Your task to perform on an android device: open app "Reddit" (install if not already installed) and enter user name: "issues@yahoo.com" and password: "belt" Image 0: 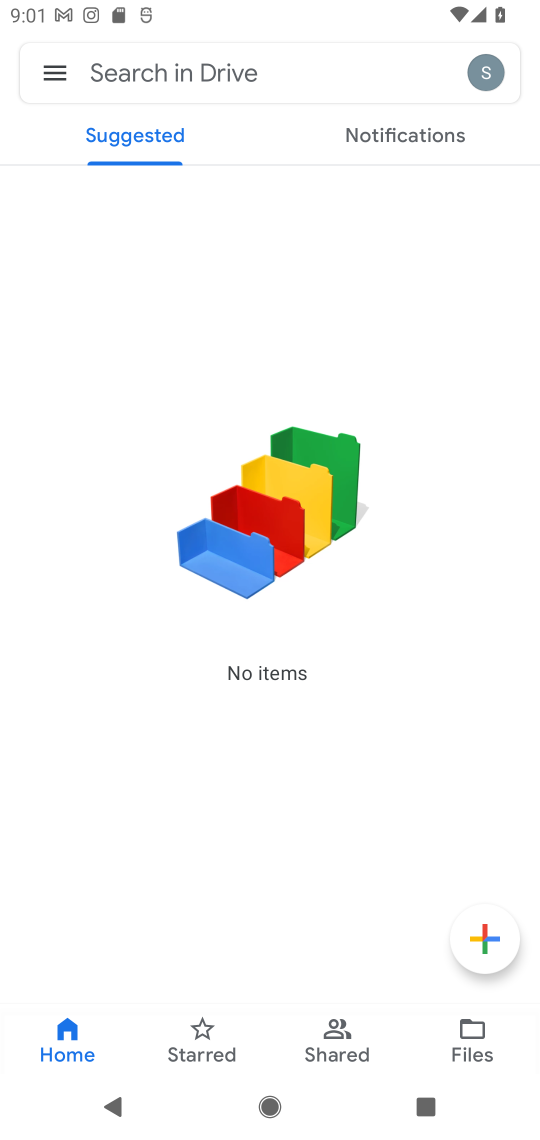
Step 0: press home button
Your task to perform on an android device: open app "Reddit" (install if not already installed) and enter user name: "issues@yahoo.com" and password: "belt" Image 1: 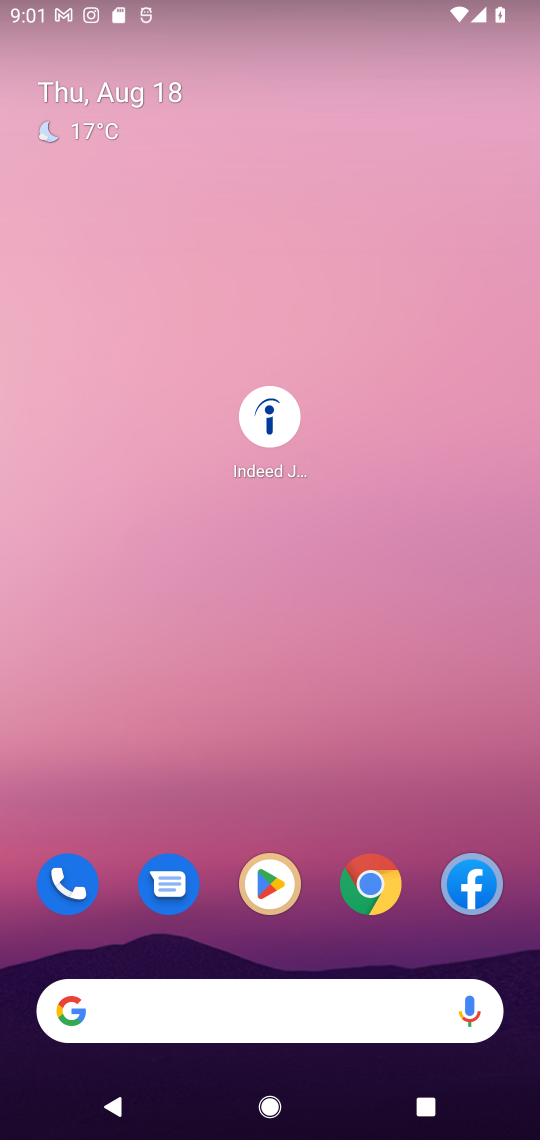
Step 1: drag from (194, 1022) to (247, 134)
Your task to perform on an android device: open app "Reddit" (install if not already installed) and enter user name: "issues@yahoo.com" and password: "belt" Image 2: 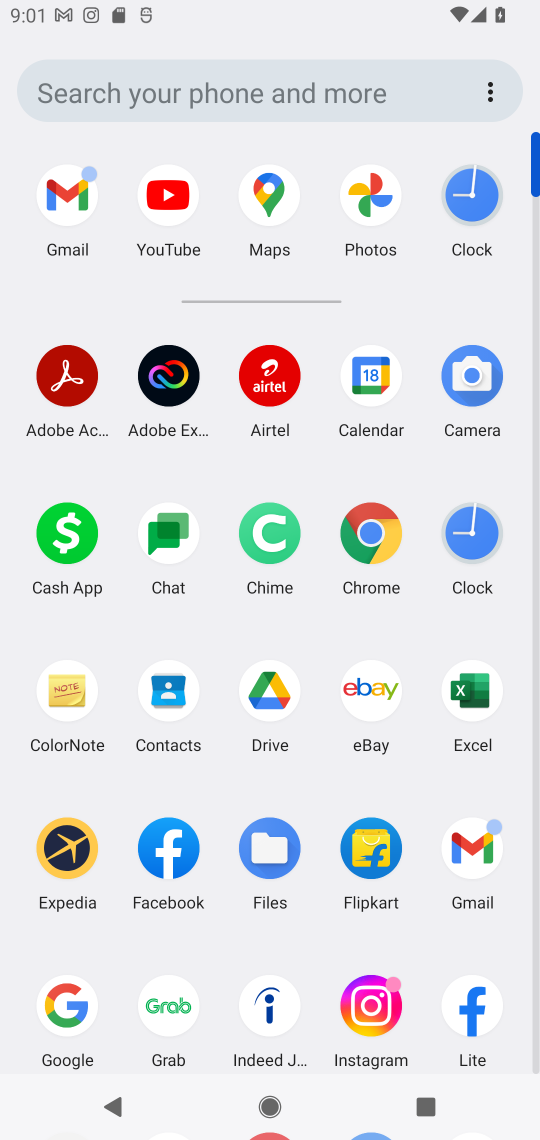
Step 2: drag from (210, 985) to (260, 245)
Your task to perform on an android device: open app "Reddit" (install if not already installed) and enter user name: "issues@yahoo.com" and password: "belt" Image 3: 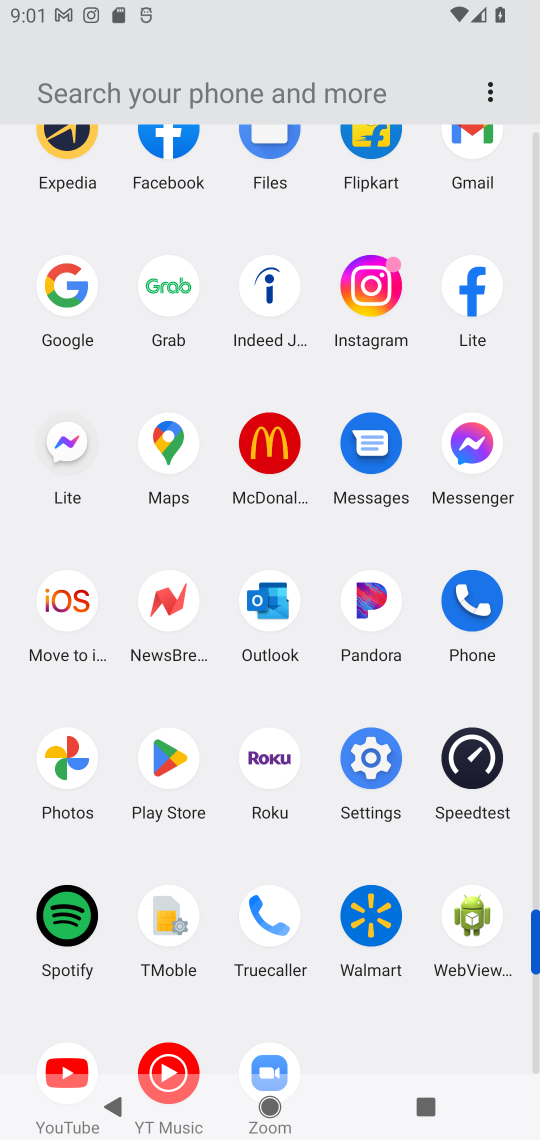
Step 3: click (170, 753)
Your task to perform on an android device: open app "Reddit" (install if not already installed) and enter user name: "issues@yahoo.com" and password: "belt" Image 4: 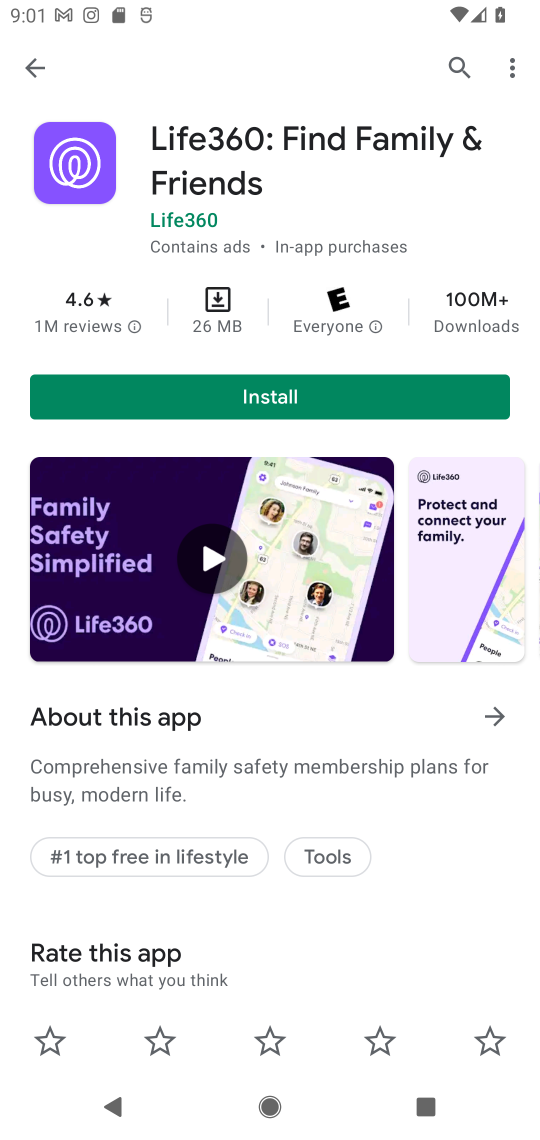
Step 4: press back button
Your task to perform on an android device: open app "Reddit" (install if not already installed) and enter user name: "issues@yahoo.com" and password: "belt" Image 5: 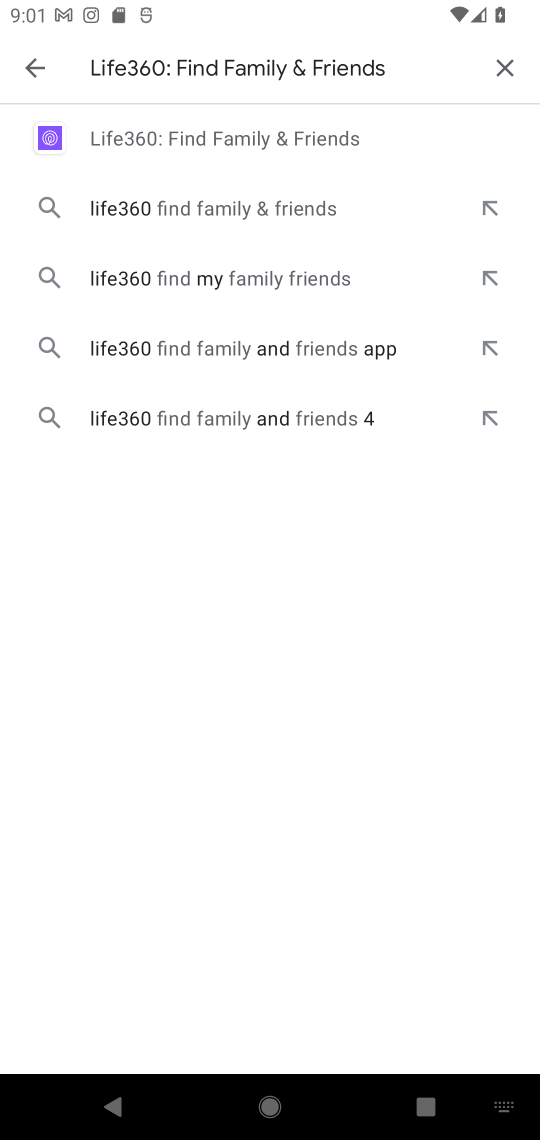
Step 5: press back button
Your task to perform on an android device: open app "Reddit" (install if not already installed) and enter user name: "issues@yahoo.com" and password: "belt" Image 6: 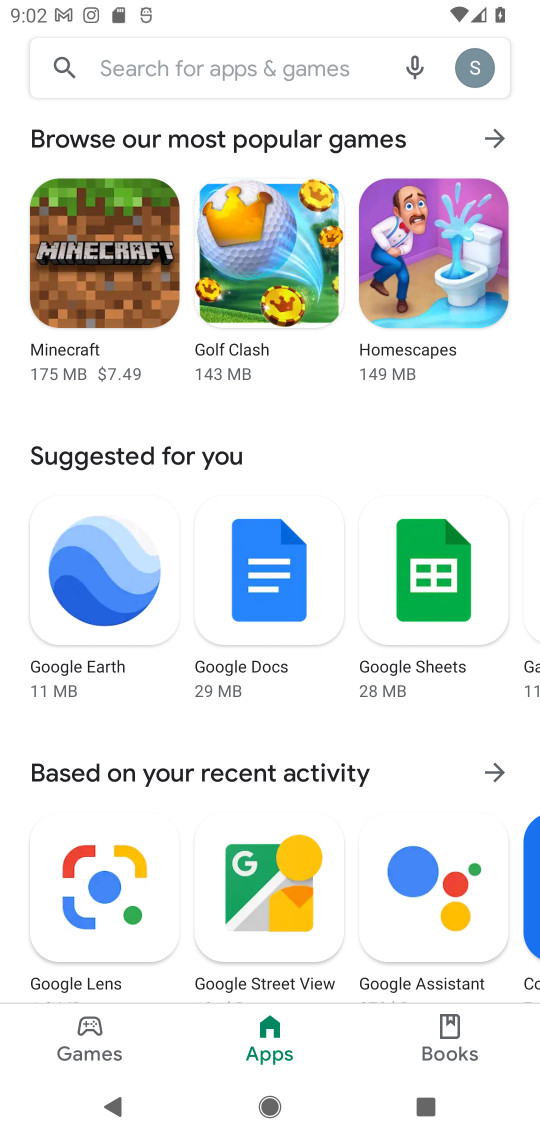
Step 6: click (269, 72)
Your task to perform on an android device: open app "Reddit" (install if not already installed) and enter user name: "issues@yahoo.com" and password: "belt" Image 7: 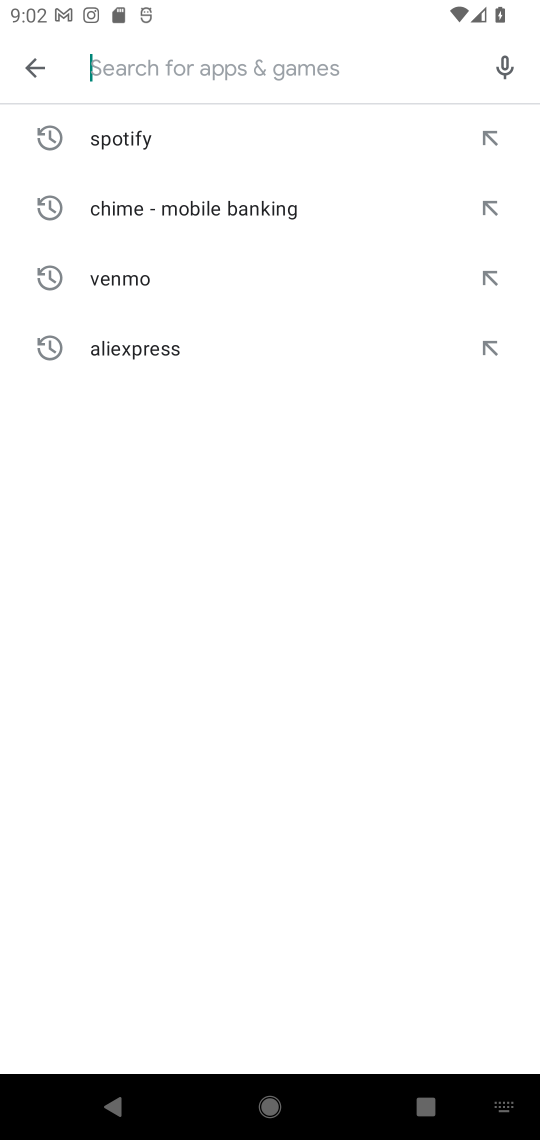
Step 7: type "Reddit"
Your task to perform on an android device: open app "Reddit" (install if not already installed) and enter user name: "issues@yahoo.com" and password: "belt" Image 8: 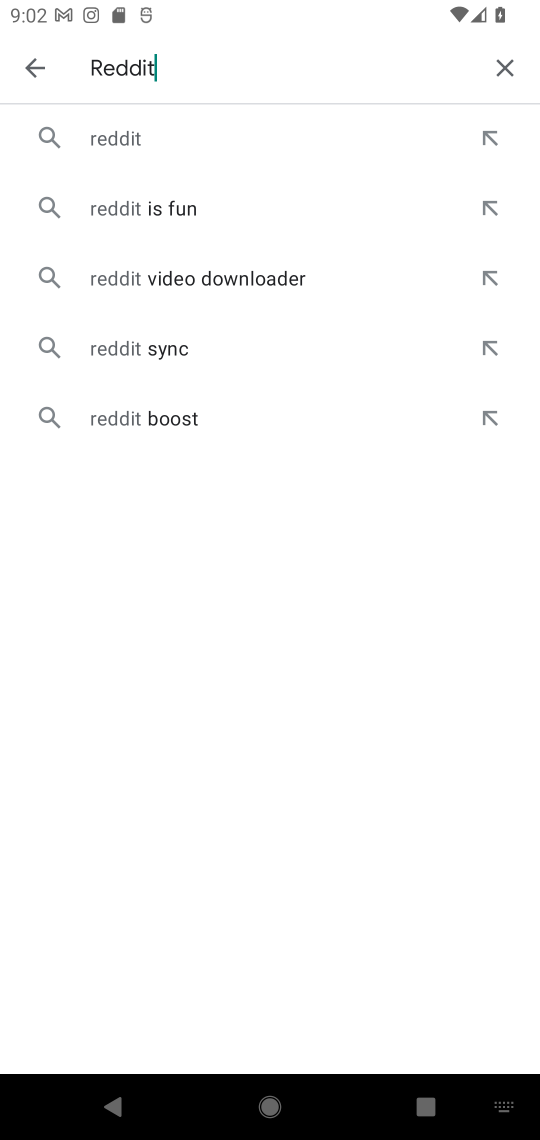
Step 8: click (124, 142)
Your task to perform on an android device: open app "Reddit" (install if not already installed) and enter user name: "issues@yahoo.com" and password: "belt" Image 9: 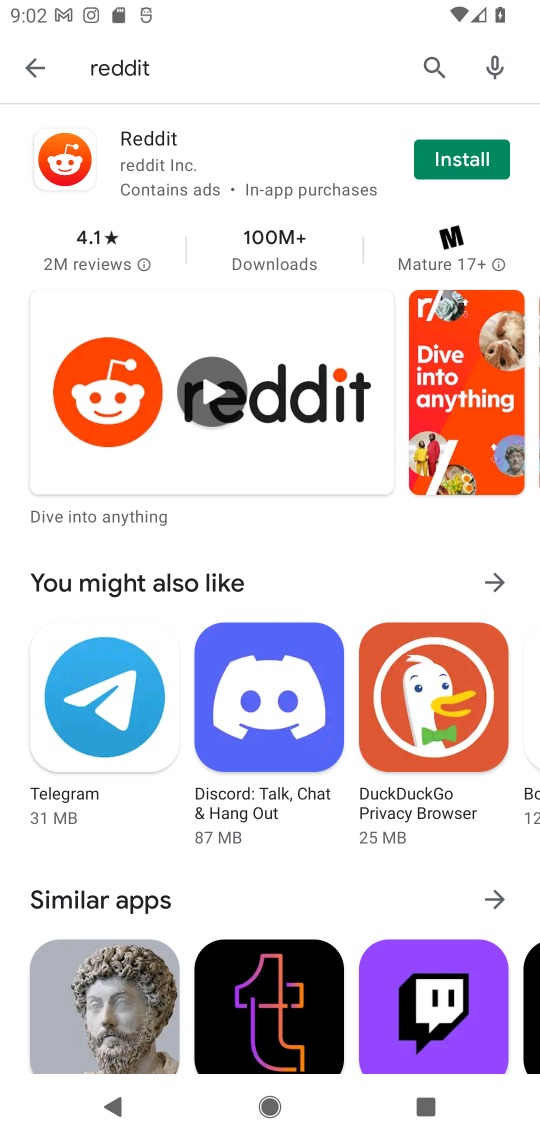
Step 9: click (468, 165)
Your task to perform on an android device: open app "Reddit" (install if not already installed) and enter user name: "issues@yahoo.com" and password: "belt" Image 10: 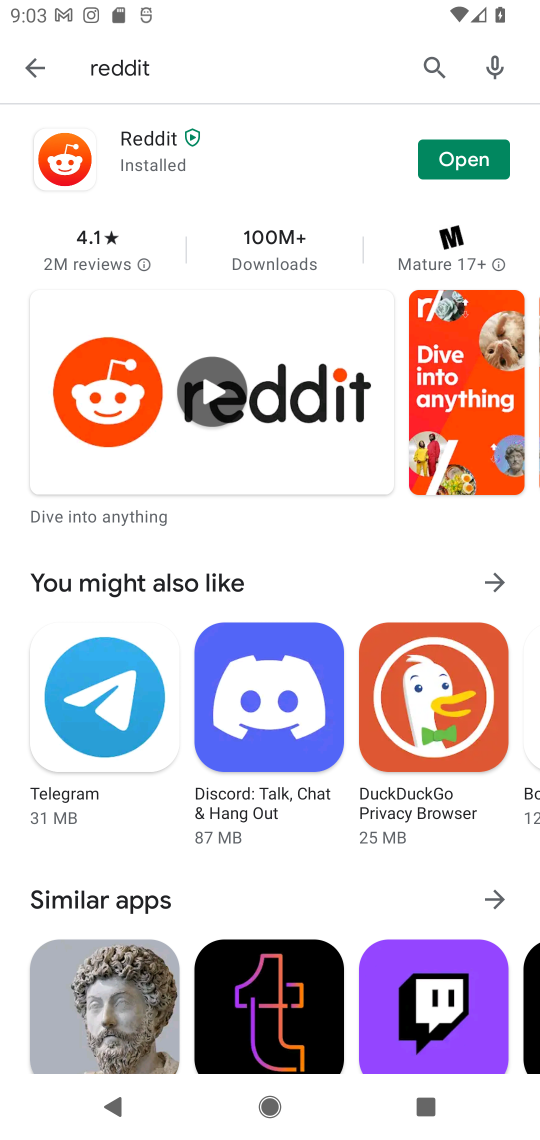
Step 10: click (470, 157)
Your task to perform on an android device: open app "Reddit" (install if not already installed) and enter user name: "issues@yahoo.com" and password: "belt" Image 11: 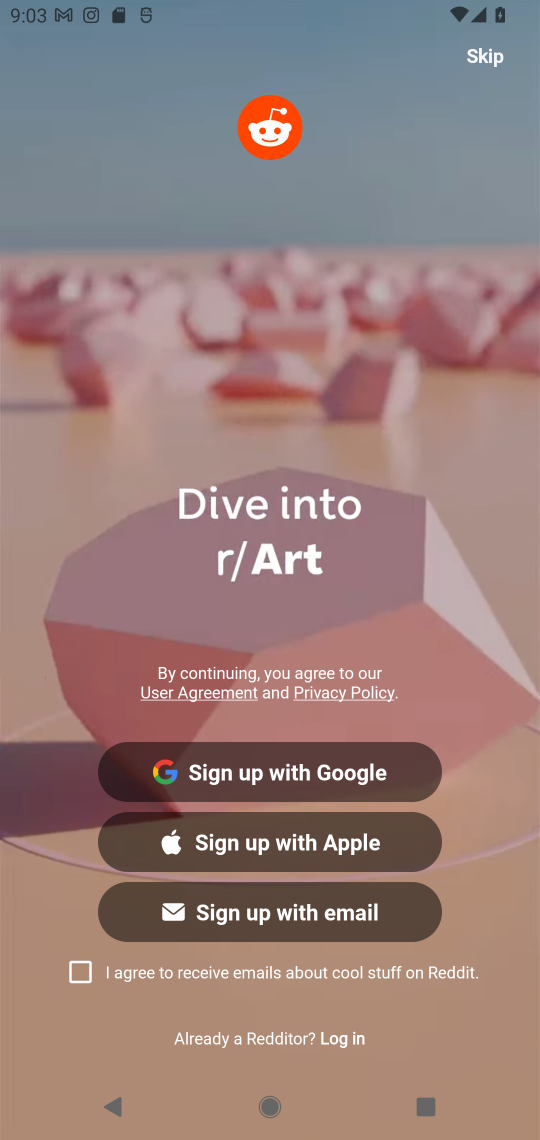
Step 11: click (351, 1032)
Your task to perform on an android device: open app "Reddit" (install if not already installed) and enter user name: "issues@yahoo.com" and password: "belt" Image 12: 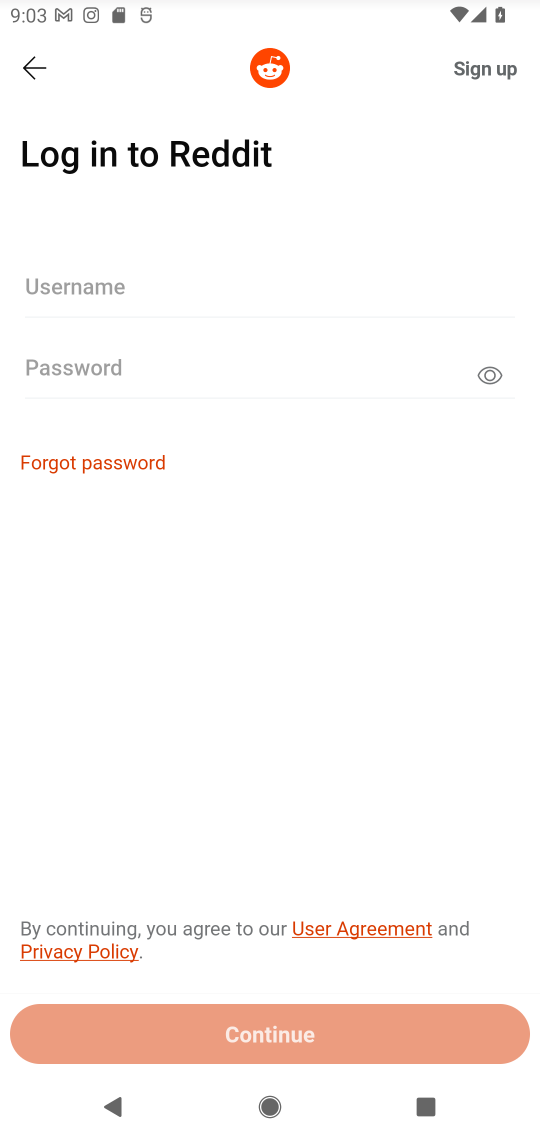
Step 12: click (187, 277)
Your task to perform on an android device: open app "Reddit" (install if not already installed) and enter user name: "issues@yahoo.com" and password: "belt" Image 13: 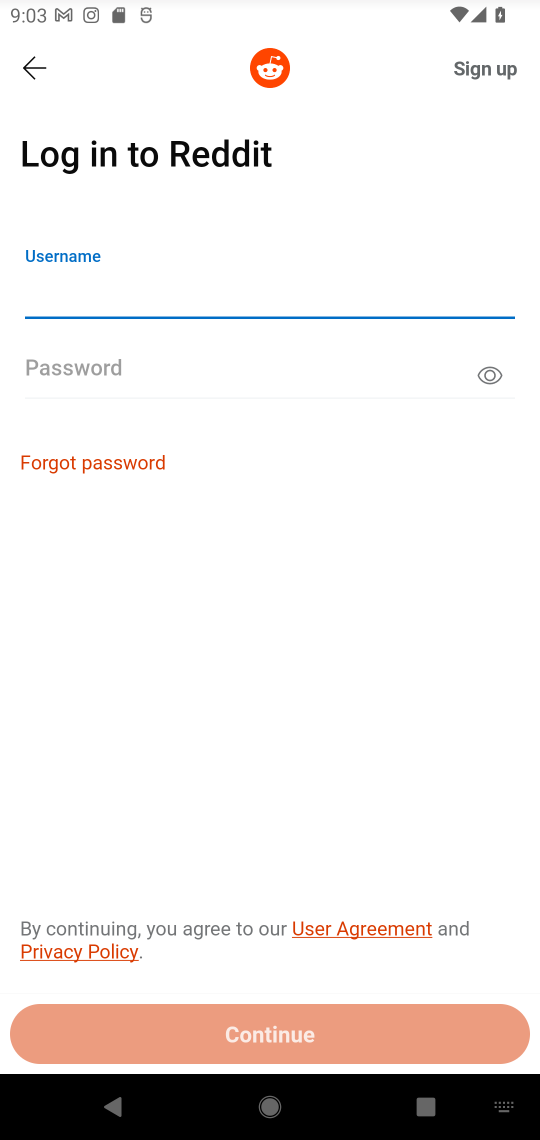
Step 13: type "issues@yahoo.com"
Your task to perform on an android device: open app "Reddit" (install if not already installed) and enter user name: "issues@yahoo.com" and password: "belt" Image 14: 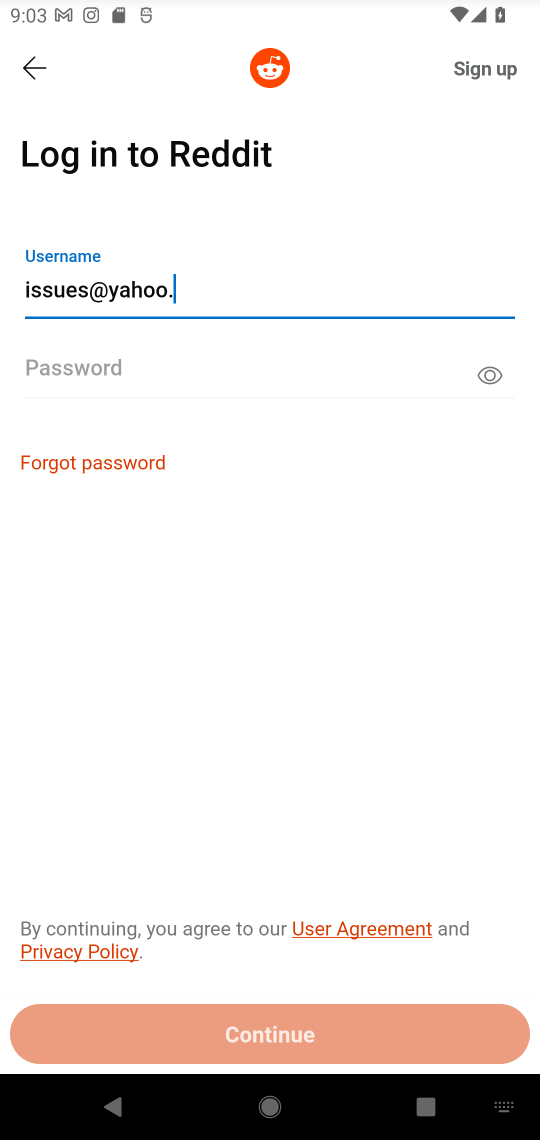
Step 14: type ""
Your task to perform on an android device: open app "Reddit" (install if not already installed) and enter user name: "issues@yahoo.com" and password: "belt" Image 15: 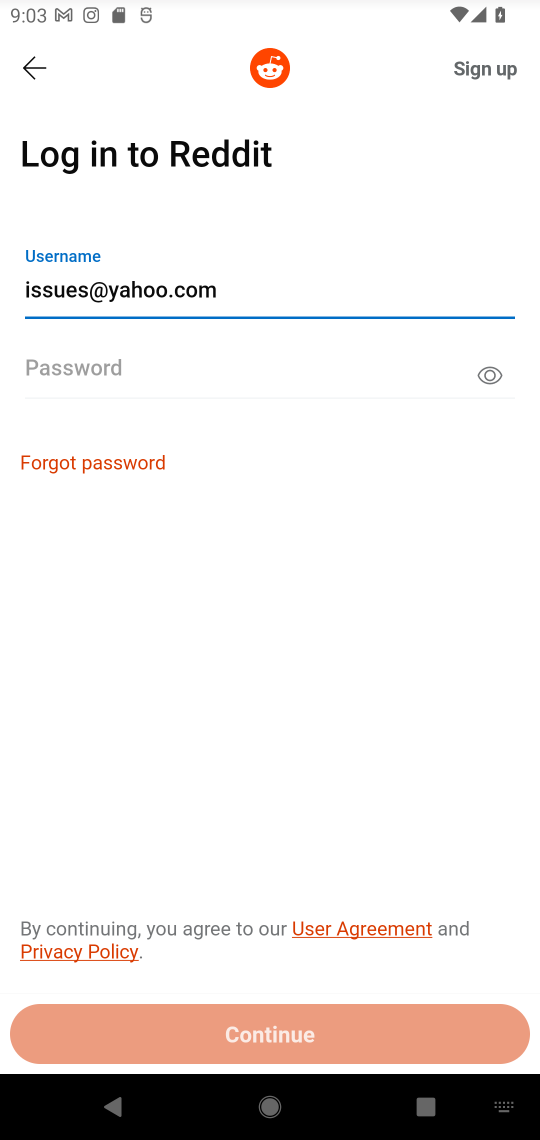
Step 15: click (122, 358)
Your task to perform on an android device: open app "Reddit" (install if not already installed) and enter user name: "issues@yahoo.com" and password: "belt" Image 16: 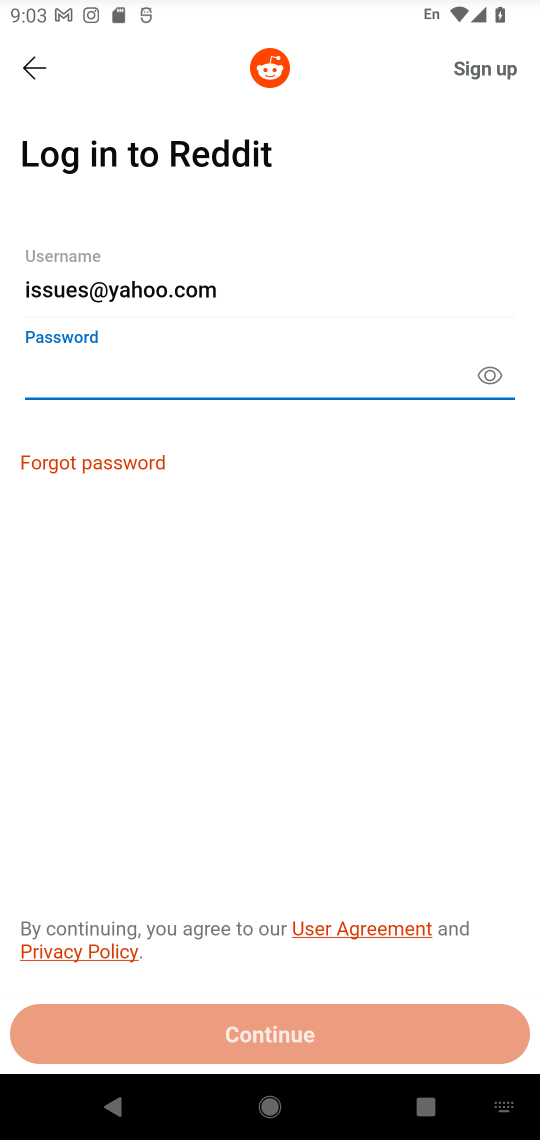
Step 16: type "belt"
Your task to perform on an android device: open app "Reddit" (install if not already installed) and enter user name: "issues@yahoo.com" and password: "belt" Image 17: 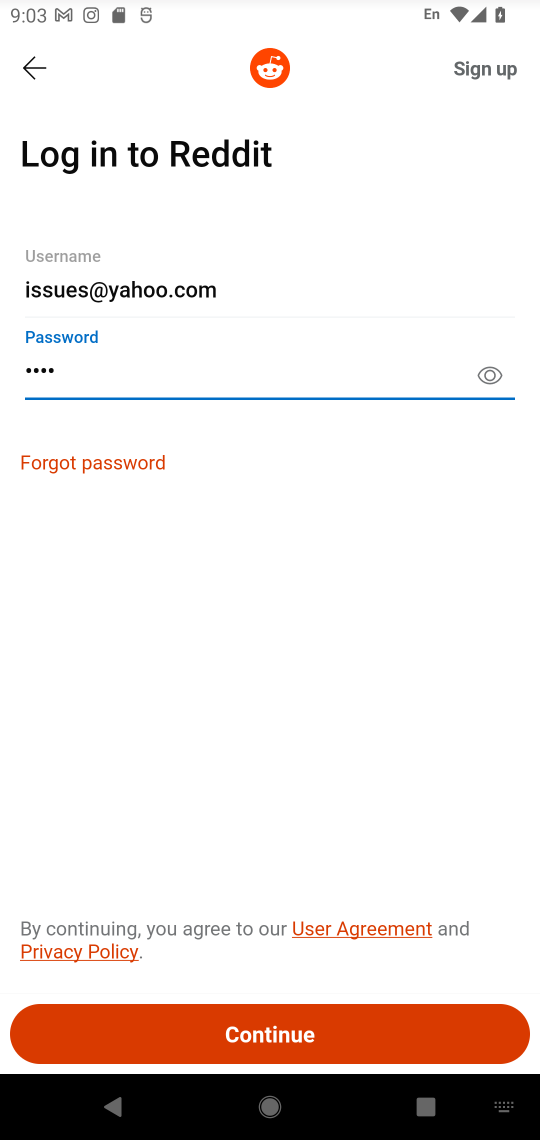
Step 17: task complete